Your task to perform on an android device: turn off improve location accuracy Image 0: 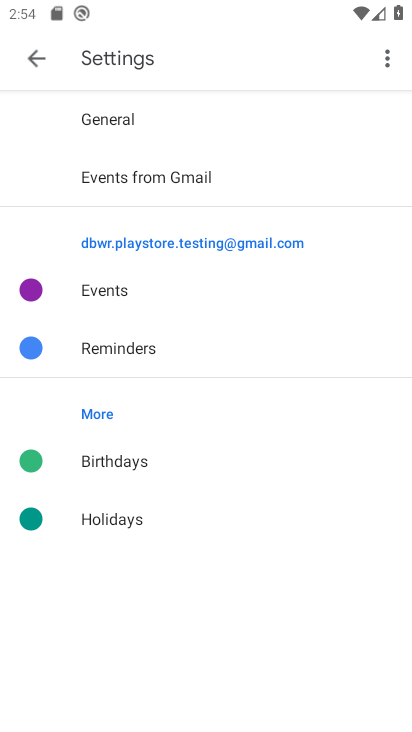
Step 0: press home button
Your task to perform on an android device: turn off improve location accuracy Image 1: 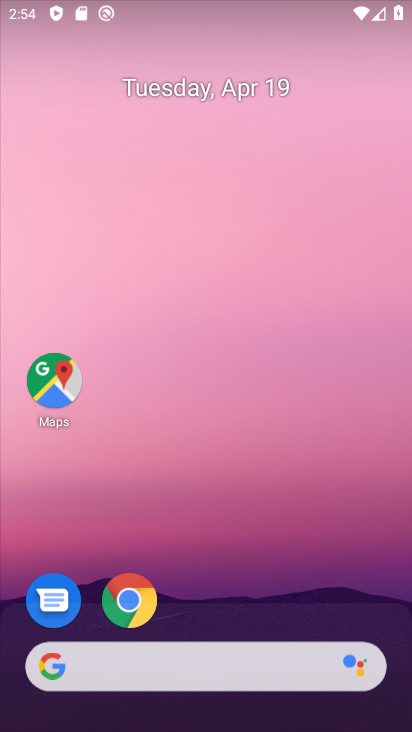
Step 1: click (242, 240)
Your task to perform on an android device: turn off improve location accuracy Image 2: 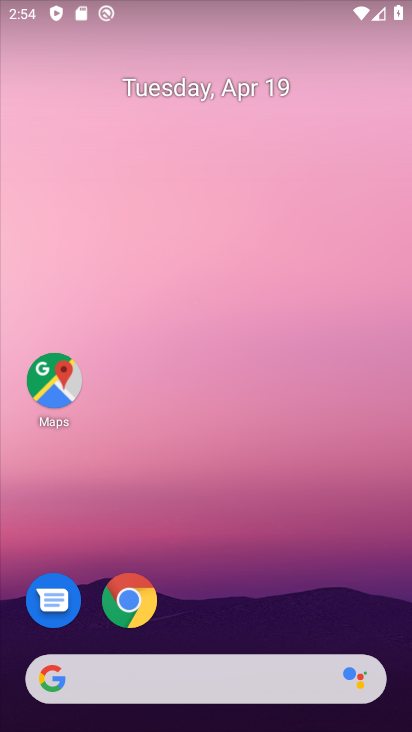
Step 2: drag from (289, 603) to (109, 149)
Your task to perform on an android device: turn off improve location accuracy Image 3: 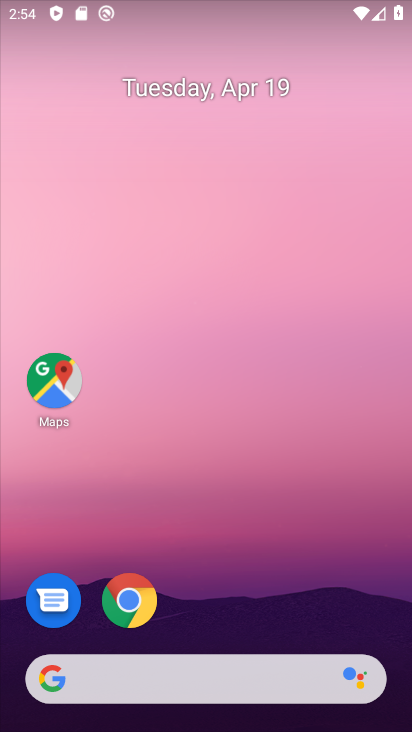
Step 3: drag from (228, 509) to (171, 214)
Your task to perform on an android device: turn off improve location accuracy Image 4: 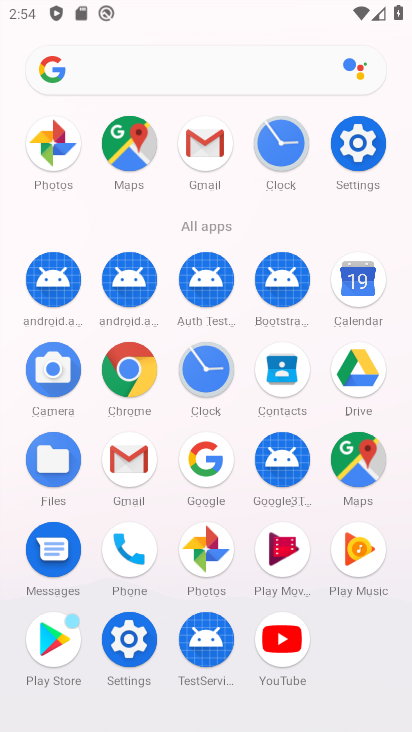
Step 4: click (363, 141)
Your task to perform on an android device: turn off improve location accuracy Image 5: 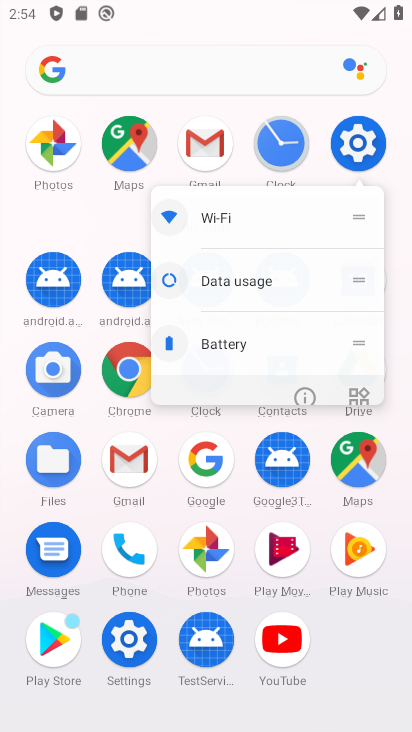
Step 5: click (363, 141)
Your task to perform on an android device: turn off improve location accuracy Image 6: 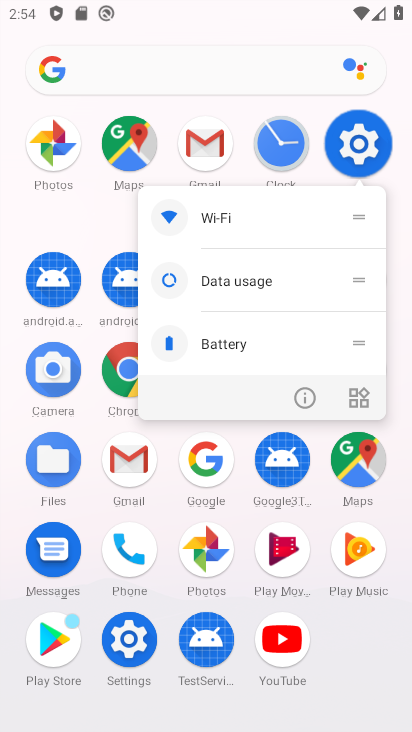
Step 6: click (364, 142)
Your task to perform on an android device: turn off improve location accuracy Image 7: 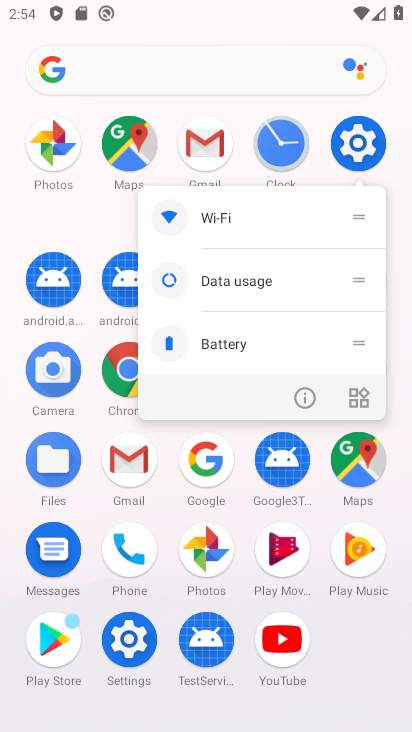
Step 7: click (357, 147)
Your task to perform on an android device: turn off improve location accuracy Image 8: 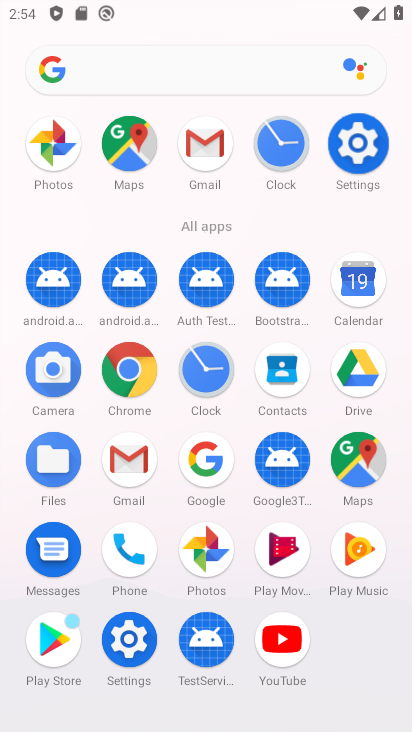
Step 8: click (373, 123)
Your task to perform on an android device: turn off improve location accuracy Image 9: 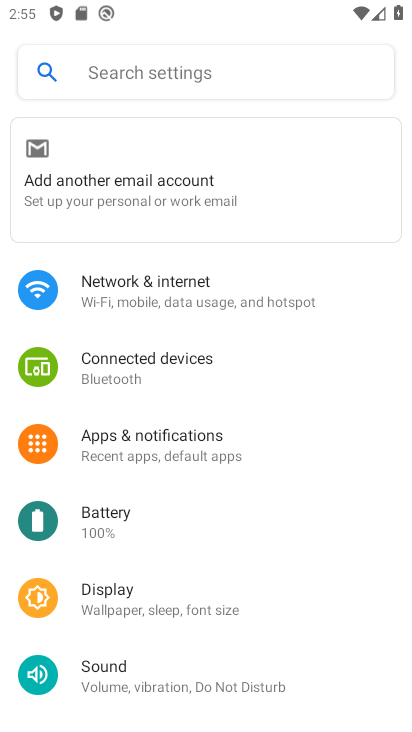
Step 9: drag from (196, 458) to (161, 199)
Your task to perform on an android device: turn off improve location accuracy Image 10: 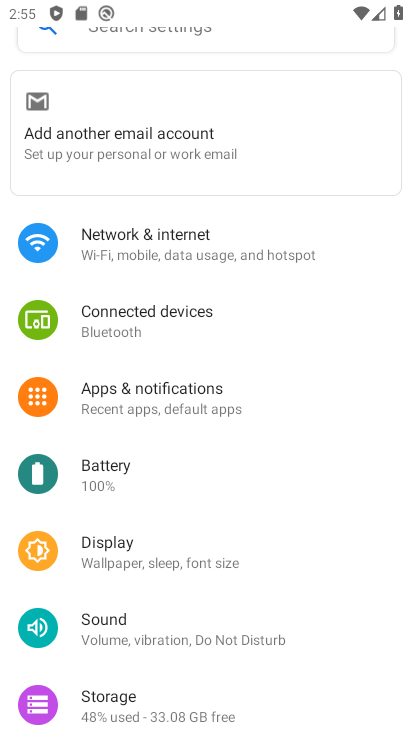
Step 10: drag from (179, 486) to (218, 259)
Your task to perform on an android device: turn off improve location accuracy Image 11: 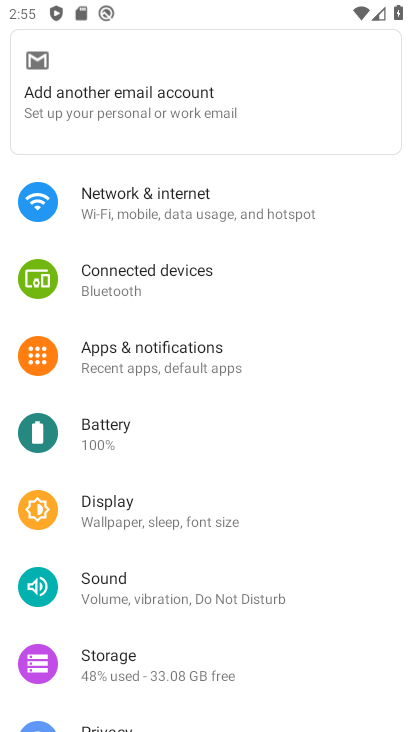
Step 11: drag from (210, 677) to (159, 173)
Your task to perform on an android device: turn off improve location accuracy Image 12: 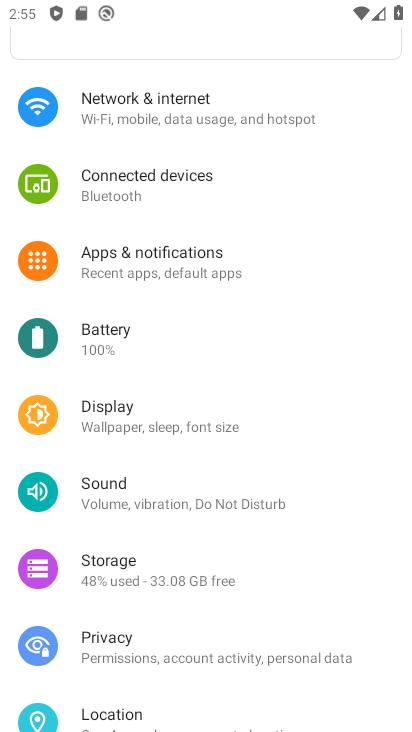
Step 12: click (133, 178)
Your task to perform on an android device: turn off improve location accuracy Image 13: 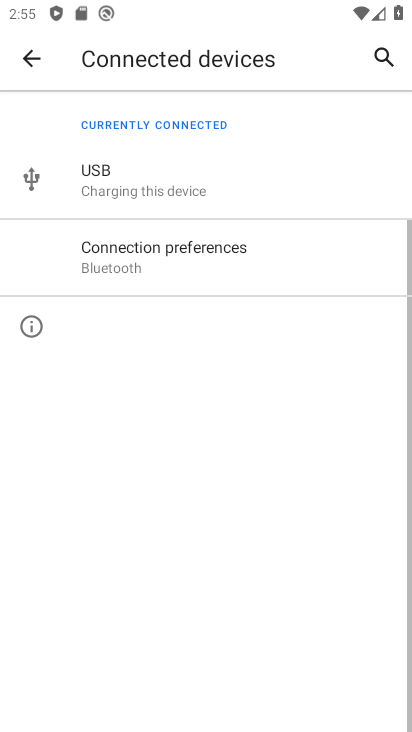
Step 13: drag from (184, 556) to (166, 214)
Your task to perform on an android device: turn off improve location accuracy Image 14: 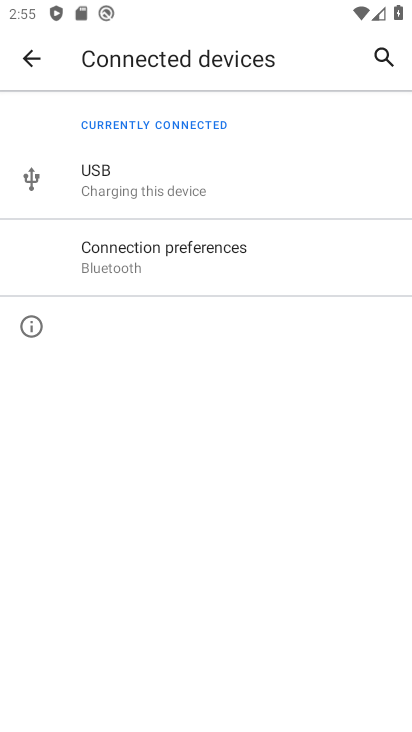
Step 14: click (26, 61)
Your task to perform on an android device: turn off improve location accuracy Image 15: 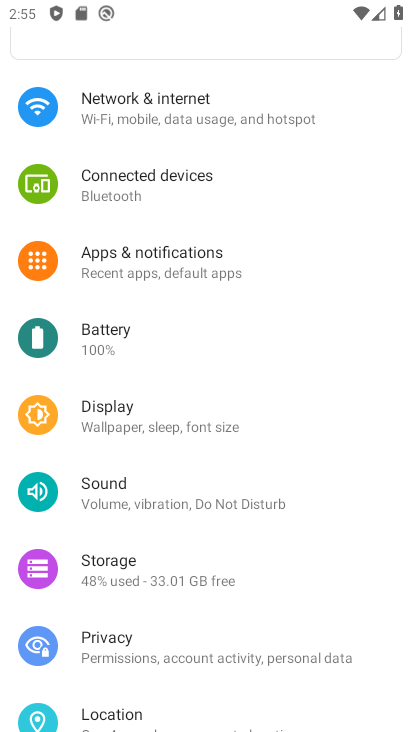
Step 15: drag from (204, 569) to (219, 299)
Your task to perform on an android device: turn off improve location accuracy Image 16: 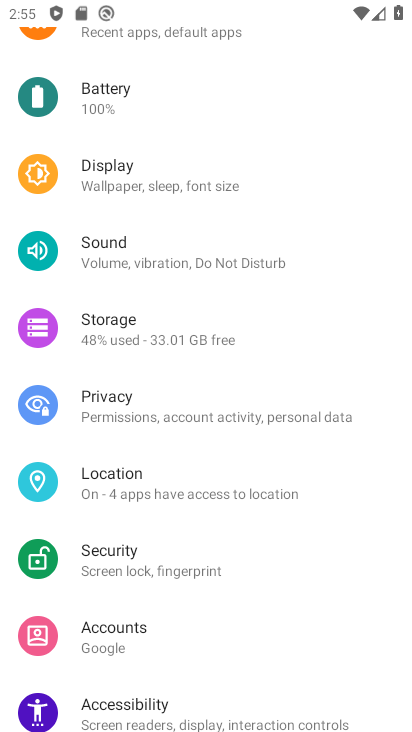
Step 16: drag from (243, 565) to (218, 135)
Your task to perform on an android device: turn off improve location accuracy Image 17: 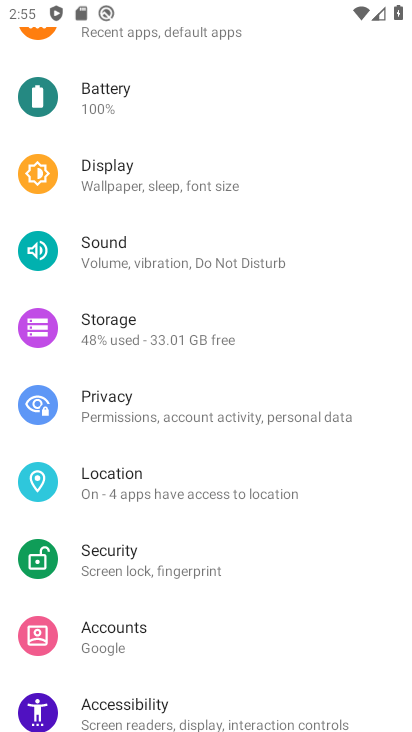
Step 17: drag from (247, 546) to (277, 221)
Your task to perform on an android device: turn off improve location accuracy Image 18: 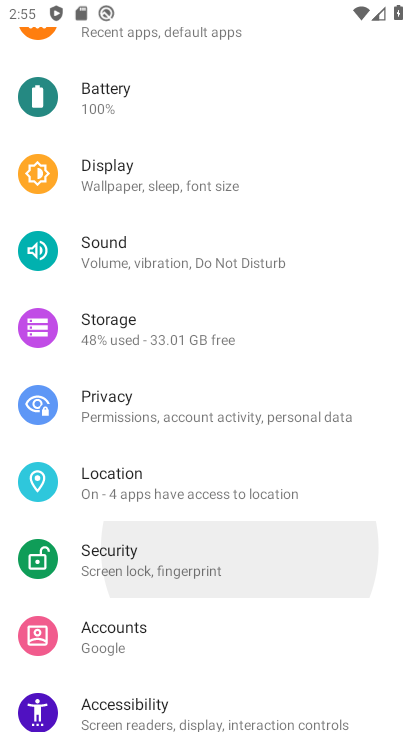
Step 18: drag from (327, 596) to (202, 188)
Your task to perform on an android device: turn off improve location accuracy Image 19: 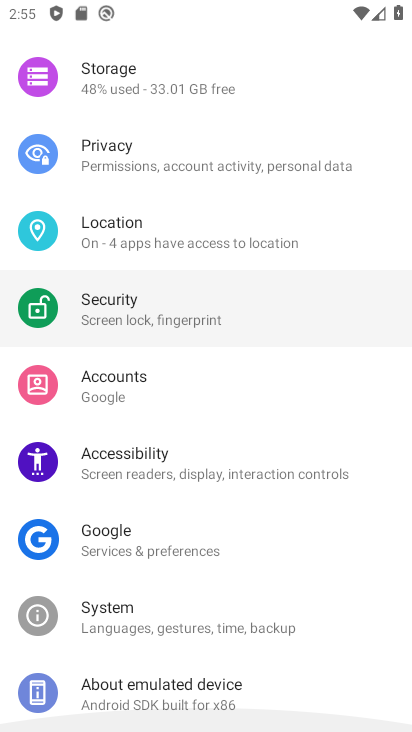
Step 19: drag from (184, 343) to (166, 211)
Your task to perform on an android device: turn off improve location accuracy Image 20: 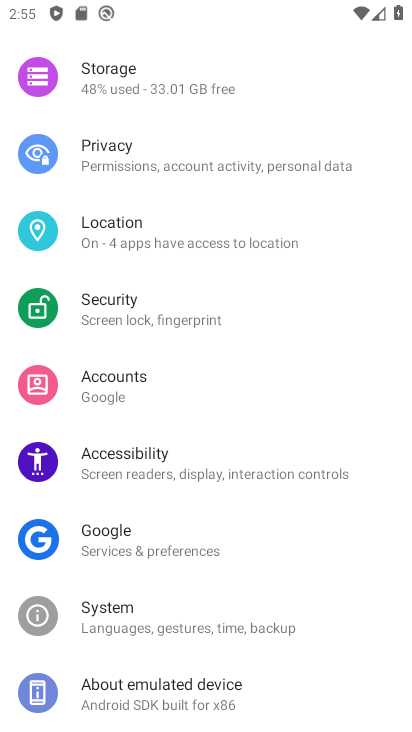
Step 20: click (113, 239)
Your task to perform on an android device: turn off improve location accuracy Image 21: 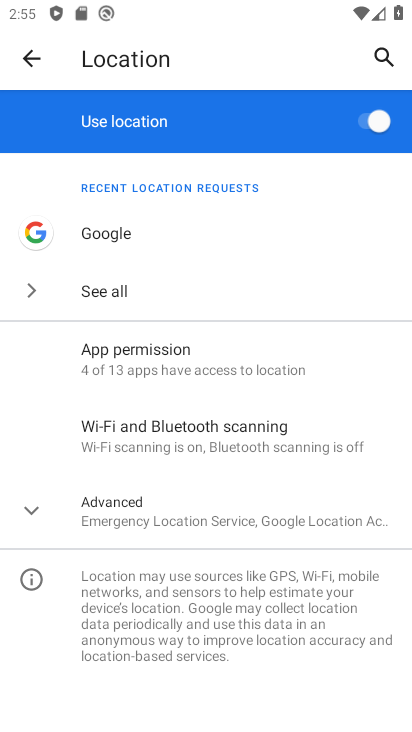
Step 21: click (367, 113)
Your task to perform on an android device: turn off improve location accuracy Image 22: 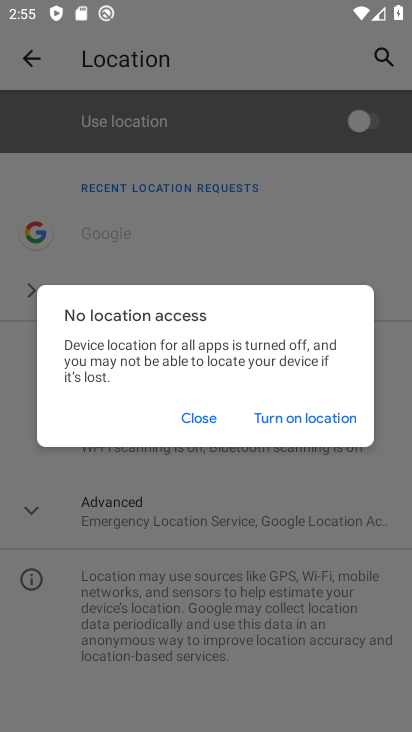
Step 22: task complete